Your task to perform on an android device: turn on javascript in the chrome app Image 0: 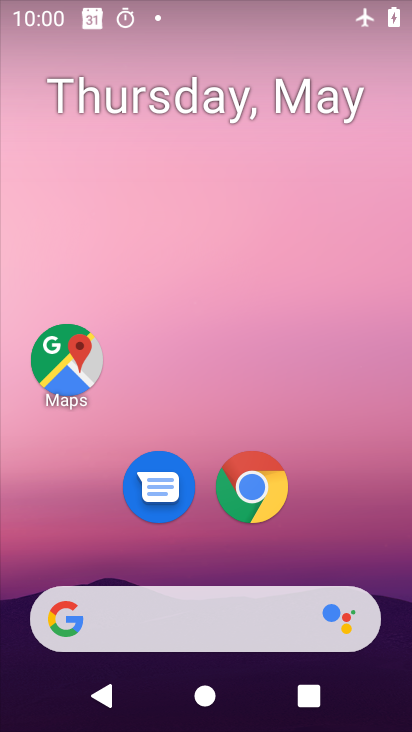
Step 0: drag from (206, 687) to (193, 184)
Your task to perform on an android device: turn on javascript in the chrome app Image 1: 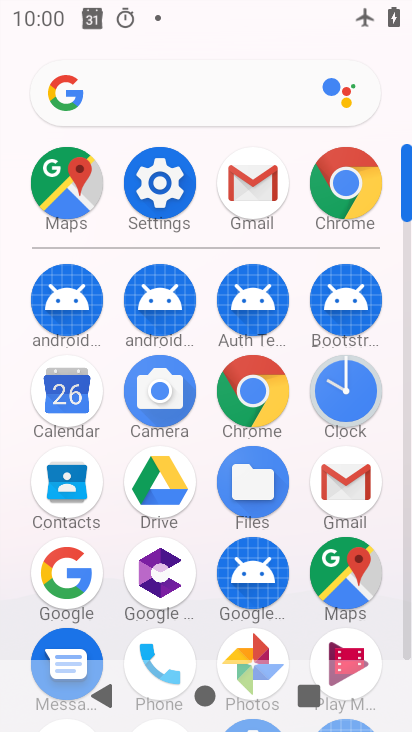
Step 1: click (344, 211)
Your task to perform on an android device: turn on javascript in the chrome app Image 2: 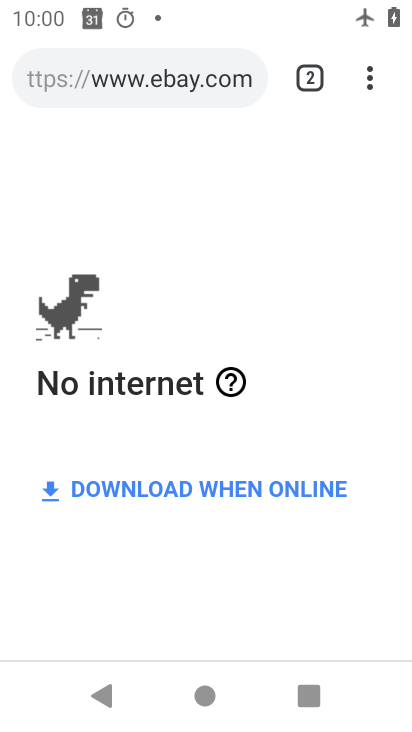
Step 2: click (367, 87)
Your task to perform on an android device: turn on javascript in the chrome app Image 3: 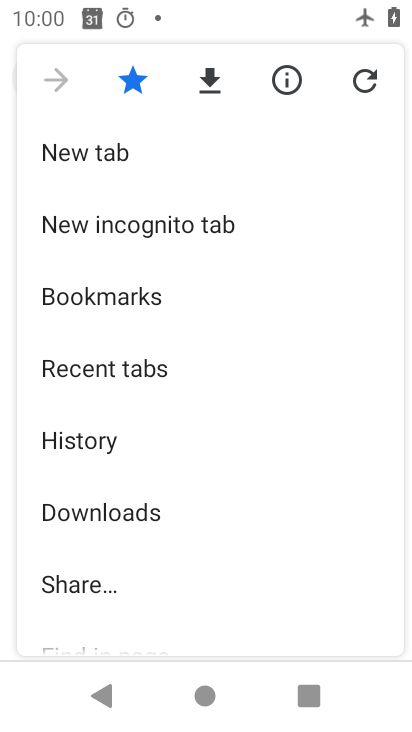
Step 3: drag from (163, 486) to (232, 149)
Your task to perform on an android device: turn on javascript in the chrome app Image 4: 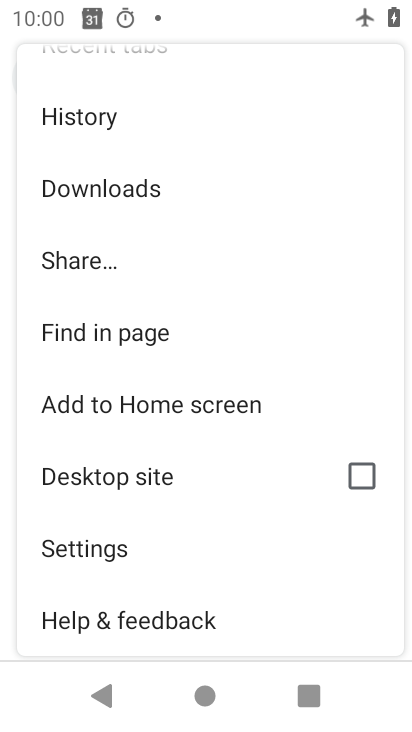
Step 4: click (119, 553)
Your task to perform on an android device: turn on javascript in the chrome app Image 5: 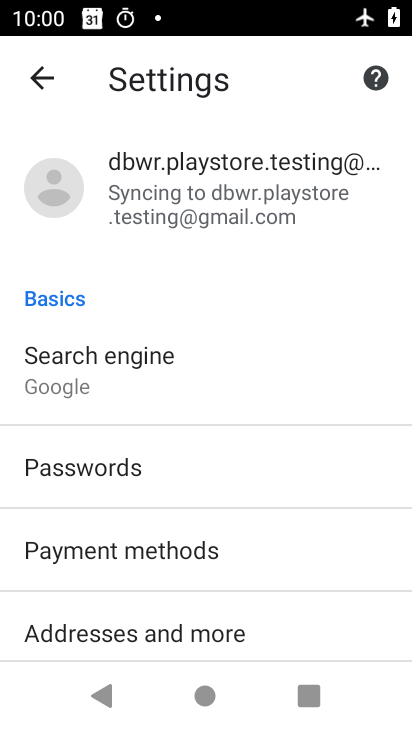
Step 5: drag from (116, 524) to (163, 270)
Your task to perform on an android device: turn on javascript in the chrome app Image 6: 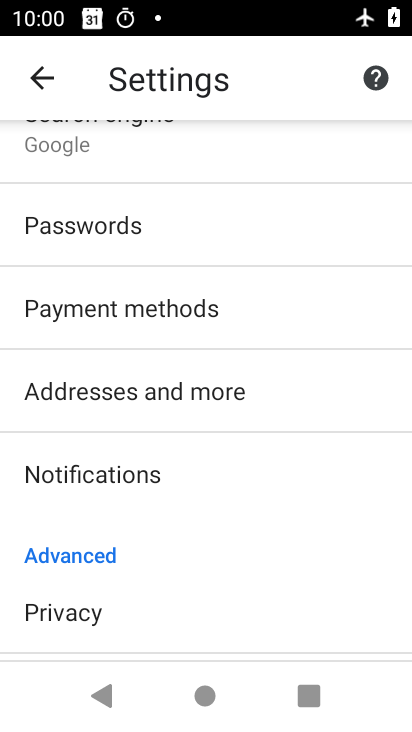
Step 6: drag from (124, 505) to (173, 278)
Your task to perform on an android device: turn on javascript in the chrome app Image 7: 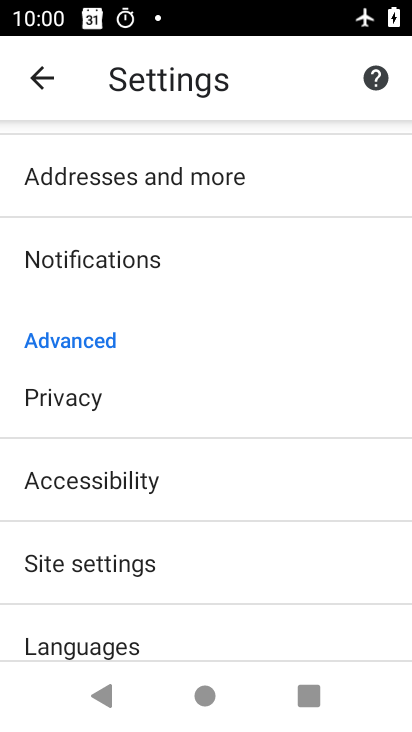
Step 7: click (122, 570)
Your task to perform on an android device: turn on javascript in the chrome app Image 8: 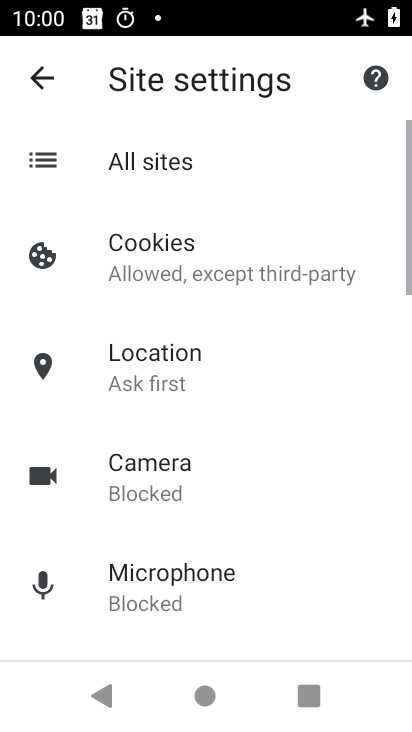
Step 8: drag from (120, 568) to (122, 324)
Your task to perform on an android device: turn on javascript in the chrome app Image 9: 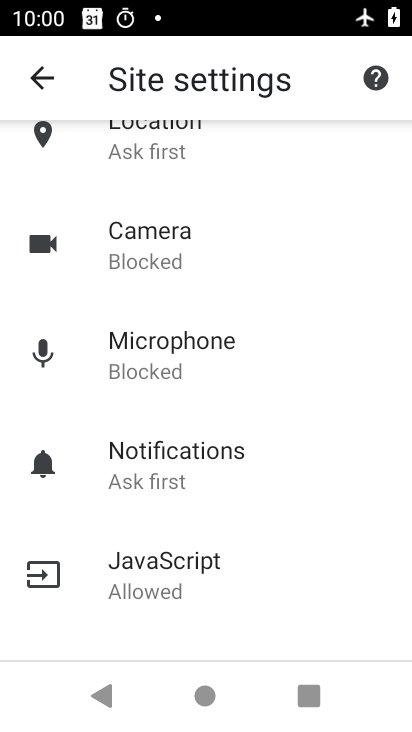
Step 9: click (130, 595)
Your task to perform on an android device: turn on javascript in the chrome app Image 10: 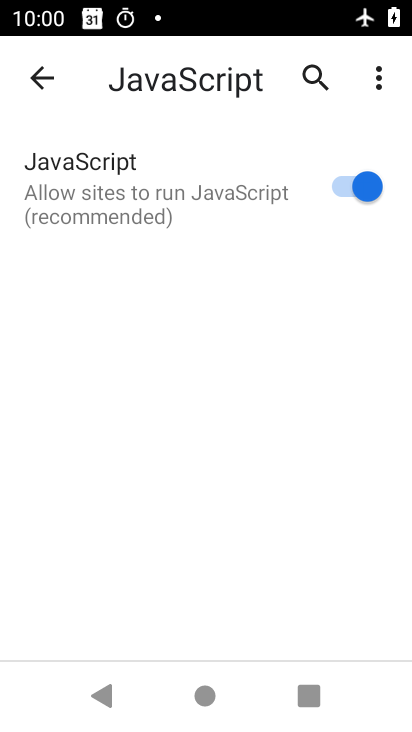
Step 10: task complete